Your task to perform on an android device: open app "TextNow: Call + Text Unlimited" (install if not already installed) Image 0: 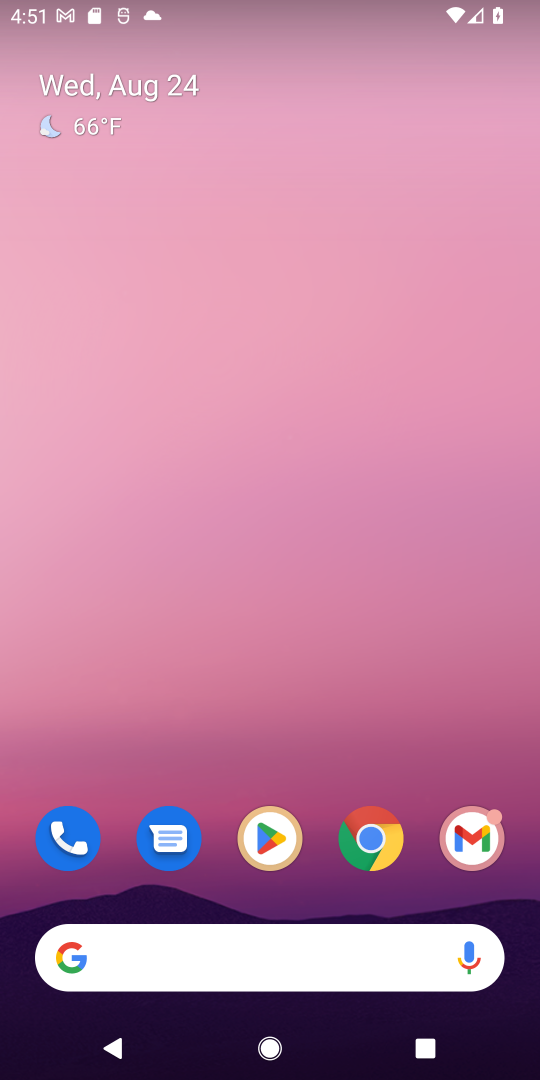
Step 0: click (265, 831)
Your task to perform on an android device: open app "TextNow: Call + Text Unlimited" (install if not already installed) Image 1: 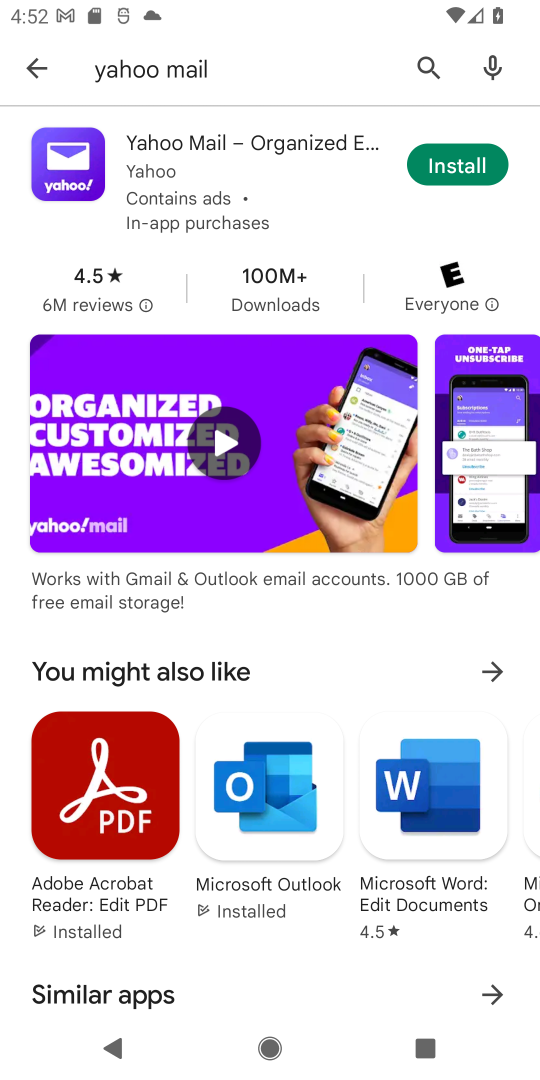
Step 1: click (427, 65)
Your task to perform on an android device: open app "TextNow: Call + Text Unlimited" (install if not already installed) Image 2: 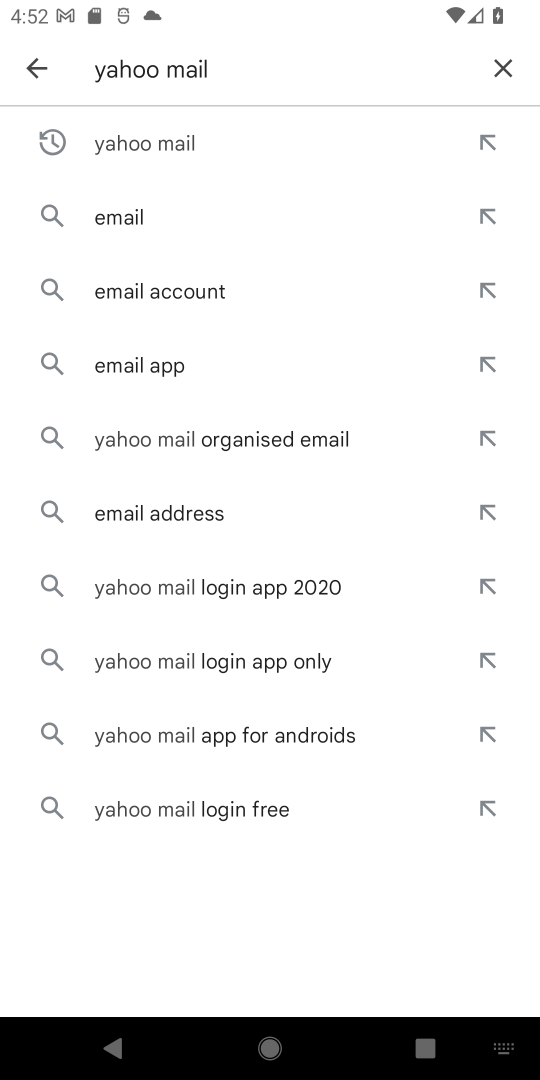
Step 2: click (493, 69)
Your task to perform on an android device: open app "TextNow: Call + Text Unlimited" (install if not already installed) Image 3: 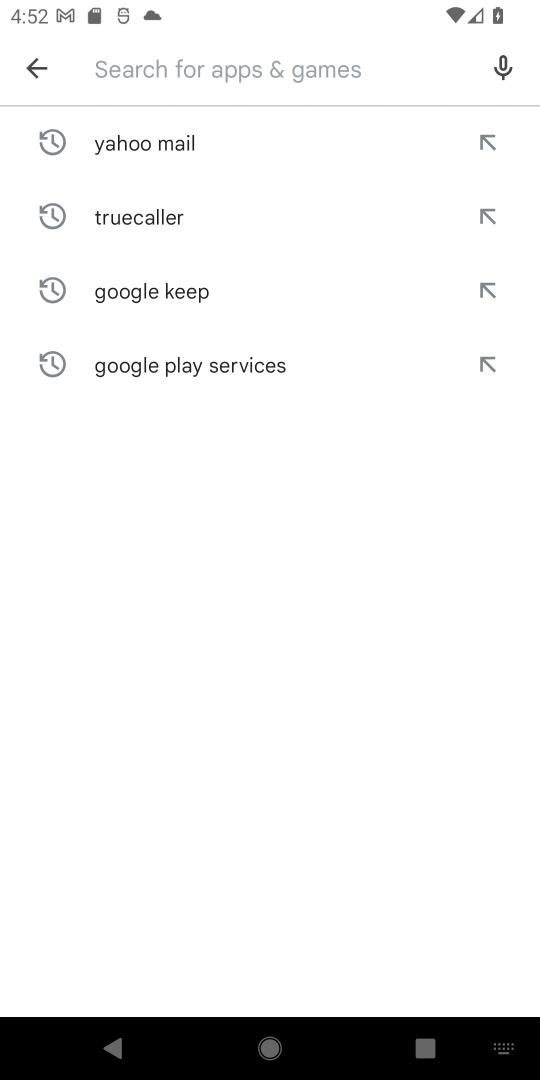
Step 3: type "TextNow: Call + Text Unlimited"
Your task to perform on an android device: open app "TextNow: Call + Text Unlimited" (install if not already installed) Image 4: 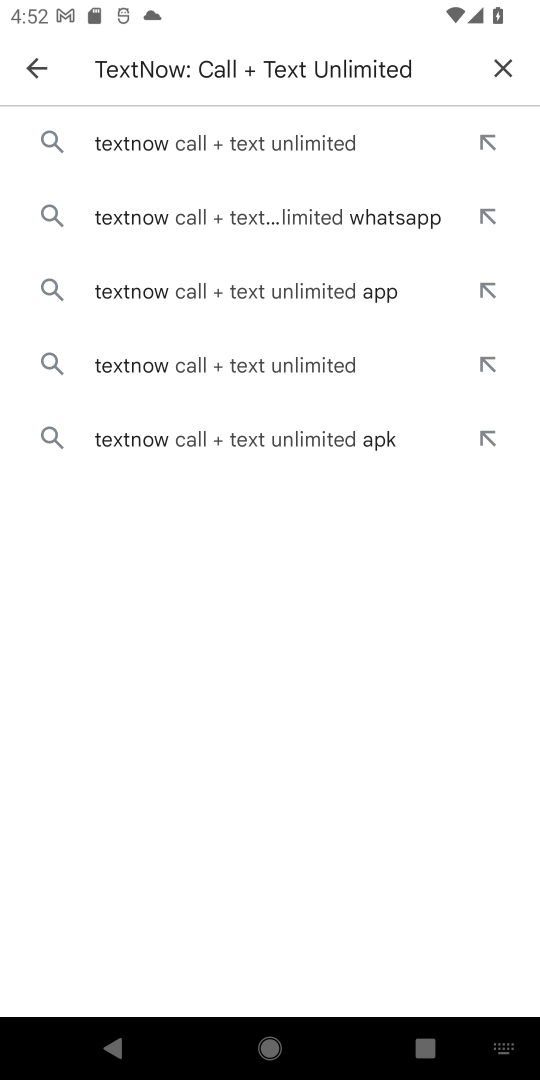
Step 4: click (332, 139)
Your task to perform on an android device: open app "TextNow: Call + Text Unlimited" (install if not already installed) Image 5: 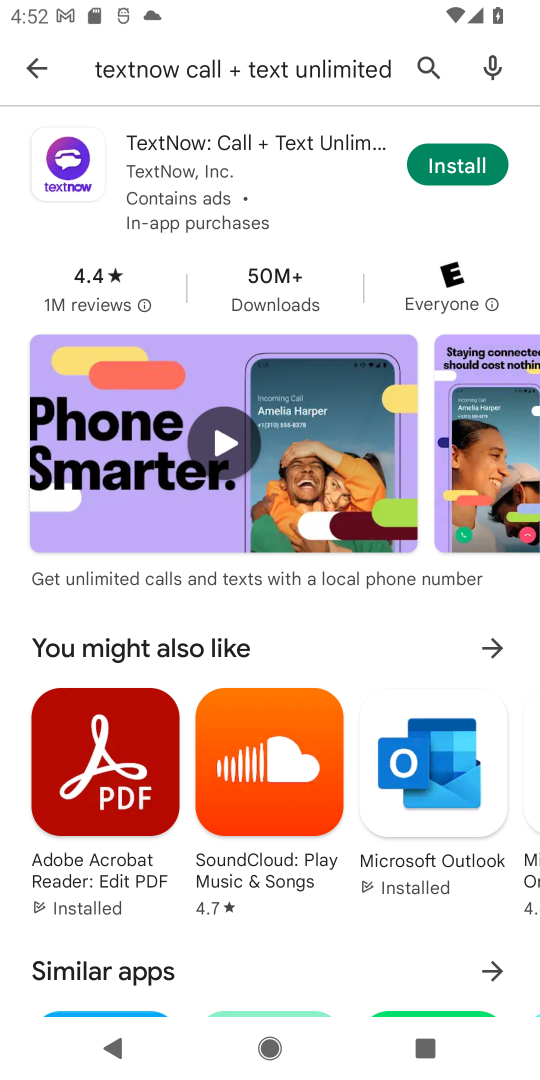
Step 5: click (451, 164)
Your task to perform on an android device: open app "TextNow: Call + Text Unlimited" (install if not already installed) Image 6: 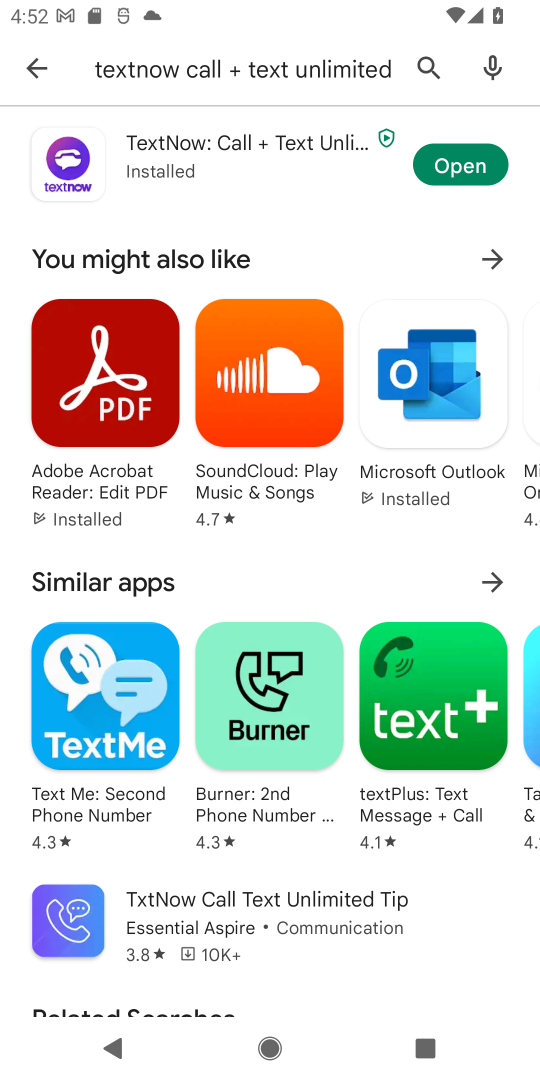
Step 6: click (467, 159)
Your task to perform on an android device: open app "TextNow: Call + Text Unlimited" (install if not already installed) Image 7: 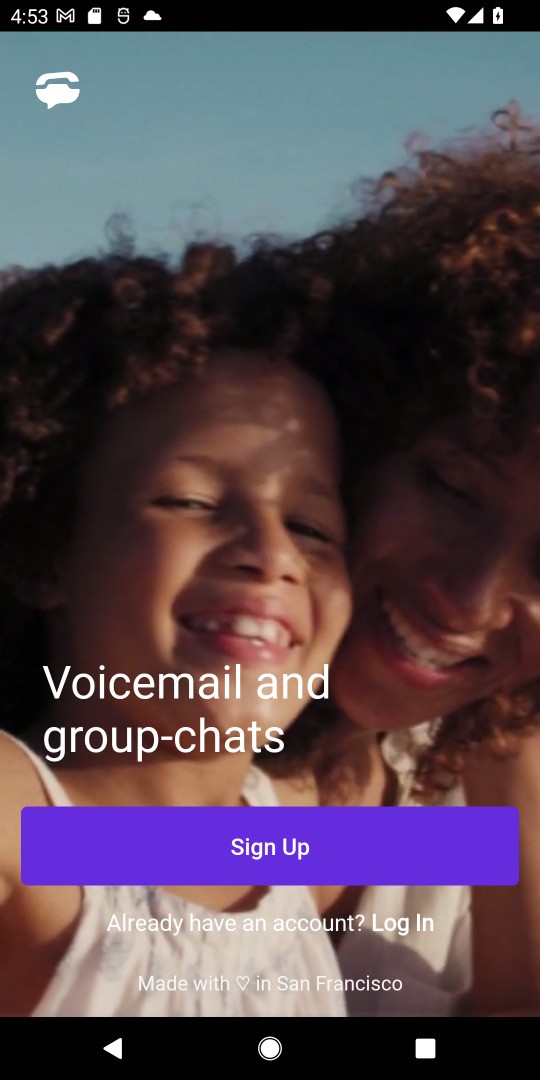
Step 7: click (255, 842)
Your task to perform on an android device: open app "TextNow: Call + Text Unlimited" (install if not already installed) Image 8: 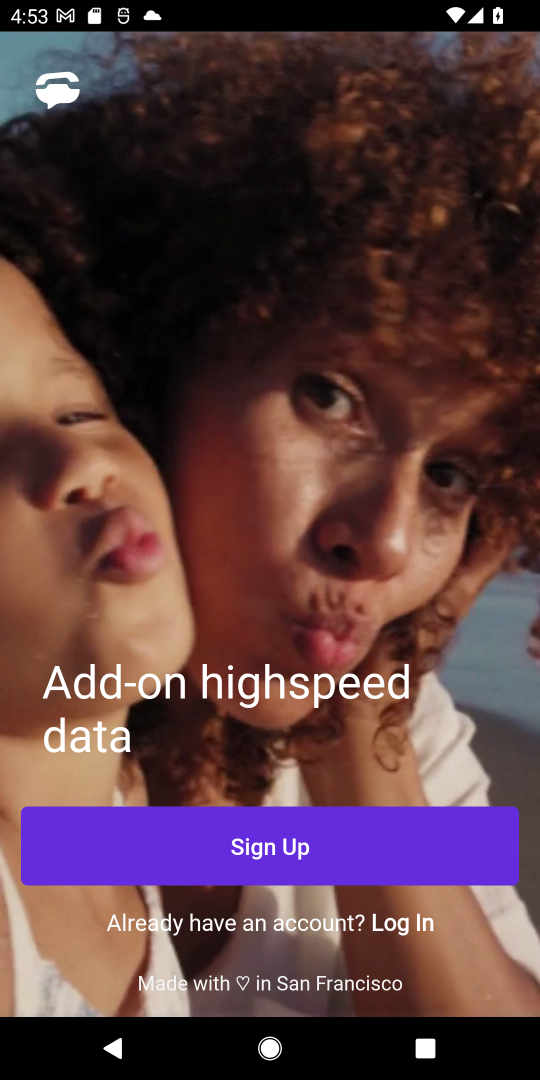
Step 8: click (299, 854)
Your task to perform on an android device: open app "TextNow: Call + Text Unlimited" (install if not already installed) Image 9: 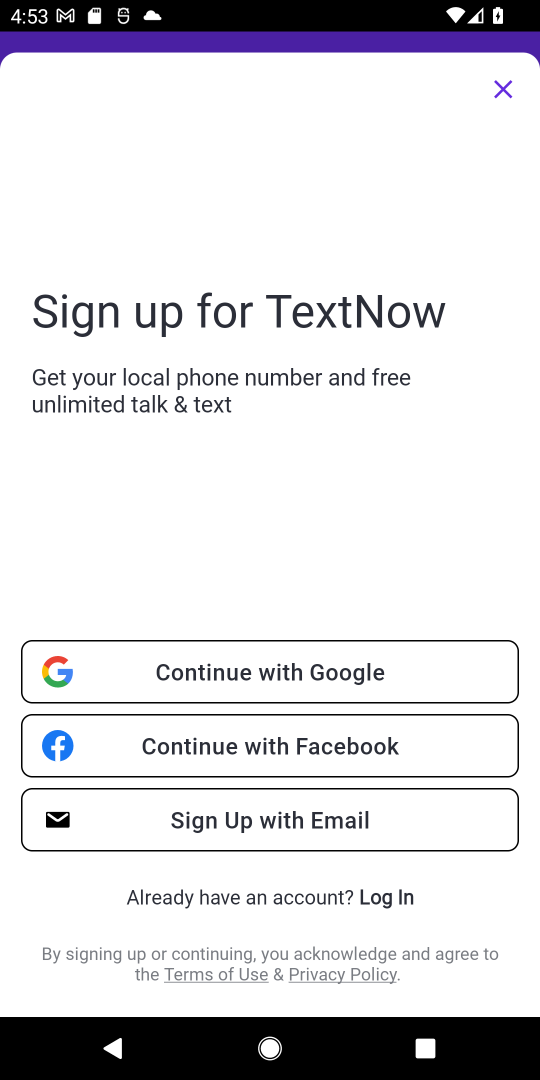
Step 9: click (267, 665)
Your task to perform on an android device: open app "TextNow: Call + Text Unlimited" (install if not already installed) Image 10: 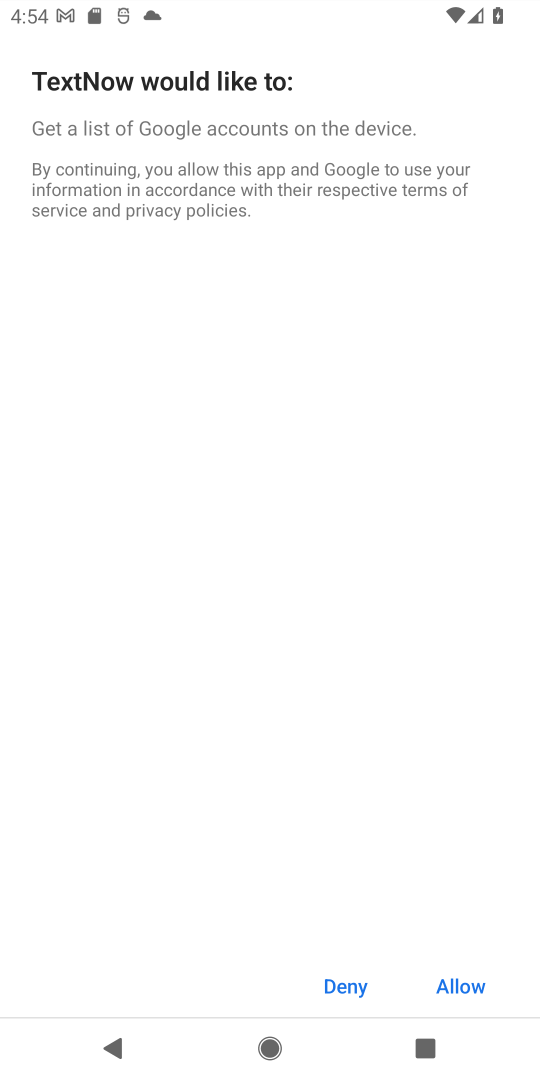
Step 10: click (462, 978)
Your task to perform on an android device: open app "TextNow: Call + Text Unlimited" (install if not already installed) Image 11: 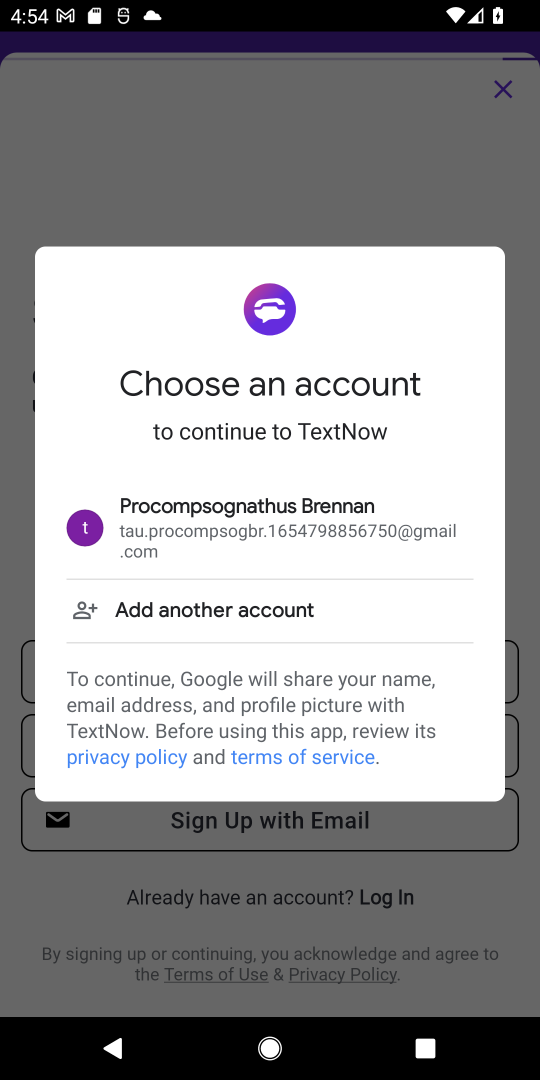
Step 11: click (214, 538)
Your task to perform on an android device: open app "TextNow: Call + Text Unlimited" (install if not already installed) Image 12: 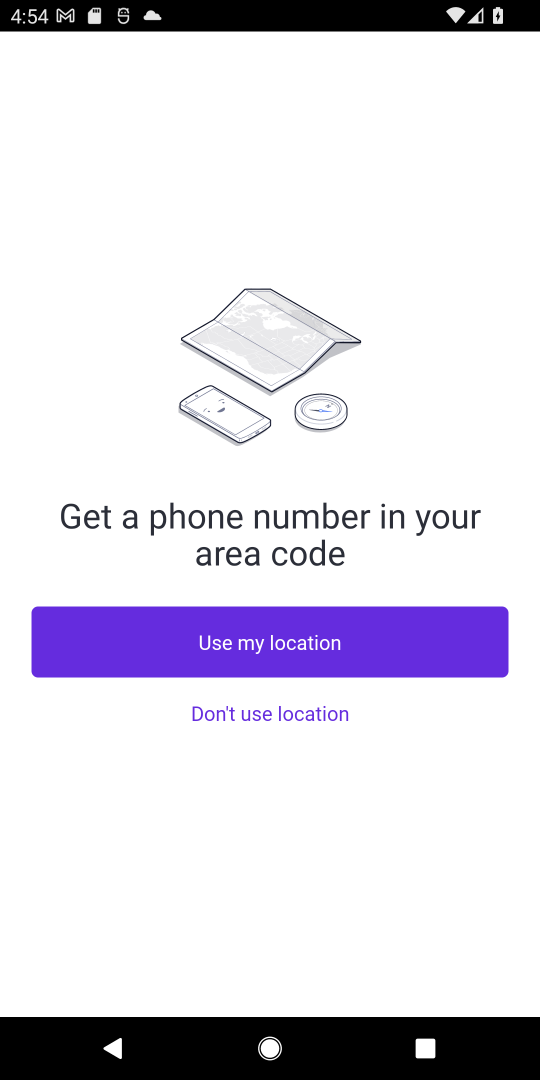
Step 12: click (262, 641)
Your task to perform on an android device: open app "TextNow: Call + Text Unlimited" (install if not already installed) Image 13: 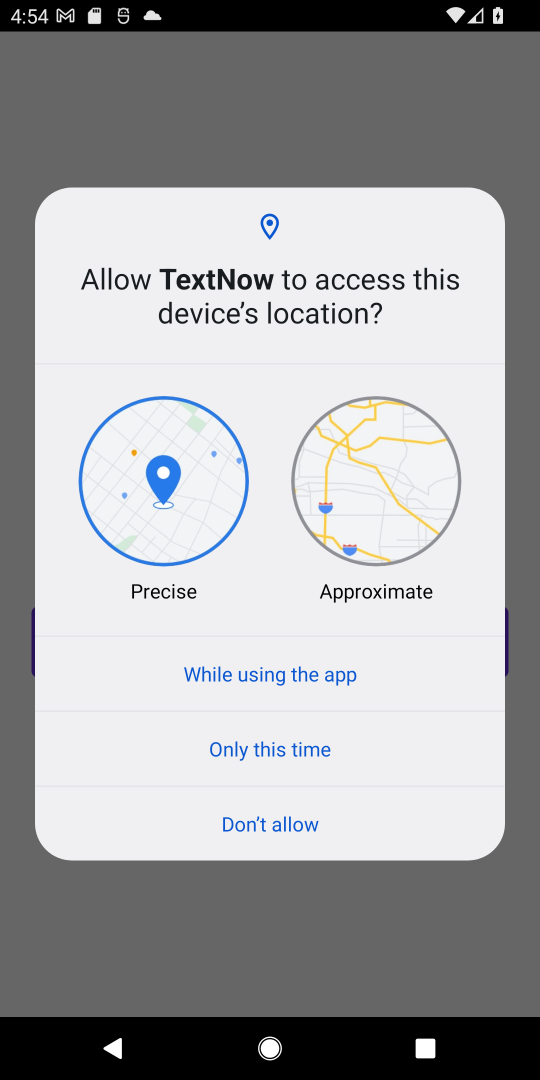
Step 13: click (267, 663)
Your task to perform on an android device: open app "TextNow: Call + Text Unlimited" (install if not already installed) Image 14: 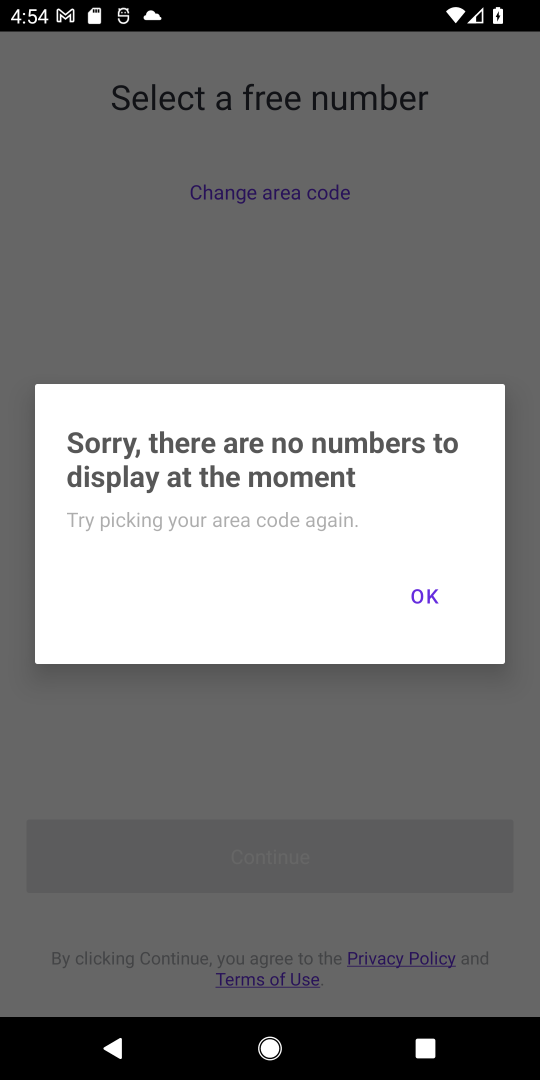
Step 14: click (431, 587)
Your task to perform on an android device: open app "TextNow: Call + Text Unlimited" (install if not already installed) Image 15: 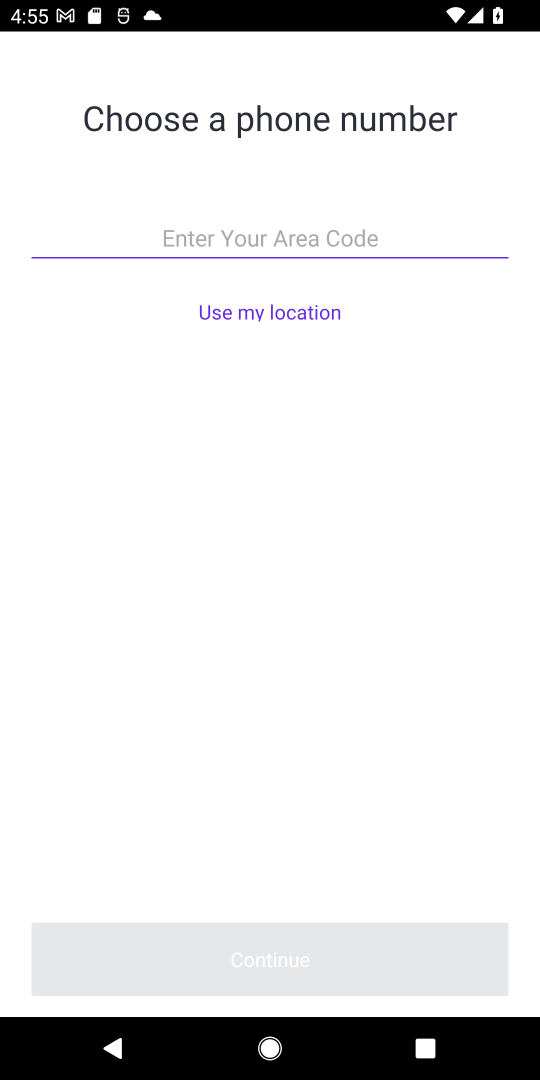
Step 15: task complete